Your task to perform on an android device: turn on notifications settings in the gmail app Image 0: 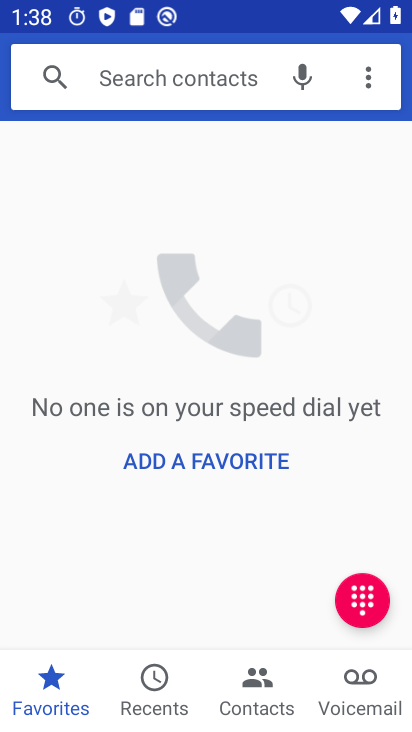
Step 0: press home button
Your task to perform on an android device: turn on notifications settings in the gmail app Image 1: 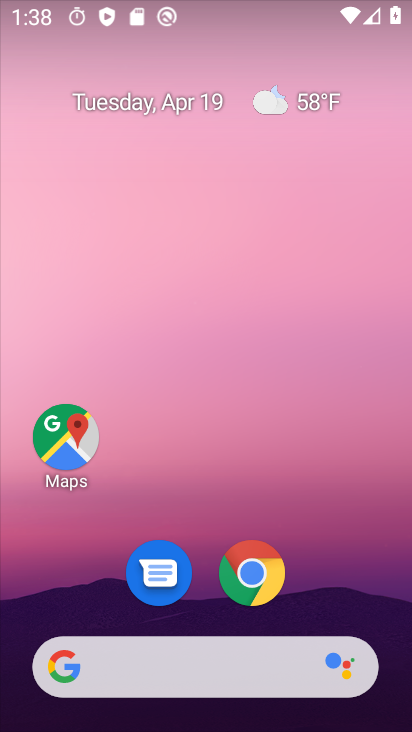
Step 1: drag from (321, 517) to (330, 74)
Your task to perform on an android device: turn on notifications settings in the gmail app Image 2: 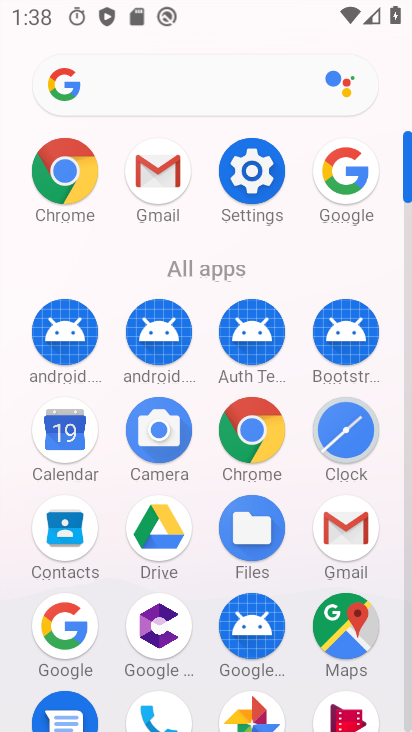
Step 2: click (148, 185)
Your task to perform on an android device: turn on notifications settings in the gmail app Image 3: 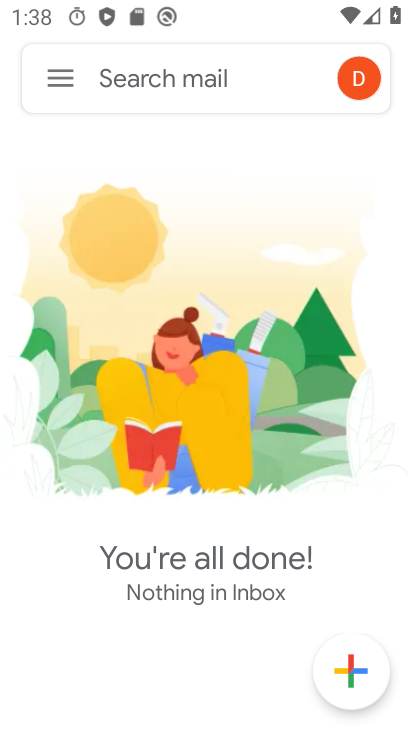
Step 3: click (71, 80)
Your task to perform on an android device: turn on notifications settings in the gmail app Image 4: 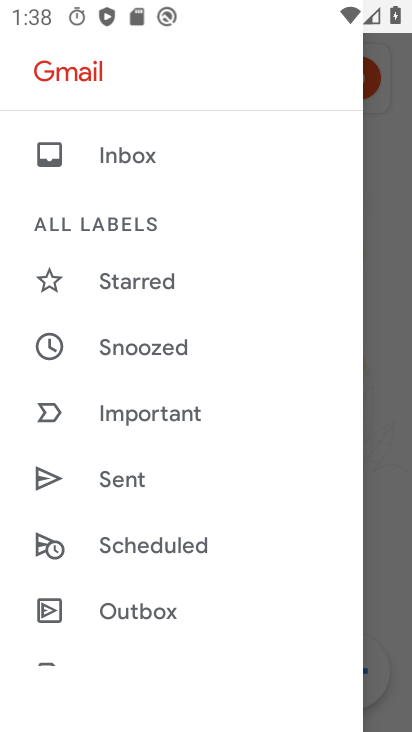
Step 4: drag from (176, 491) to (135, 186)
Your task to perform on an android device: turn on notifications settings in the gmail app Image 5: 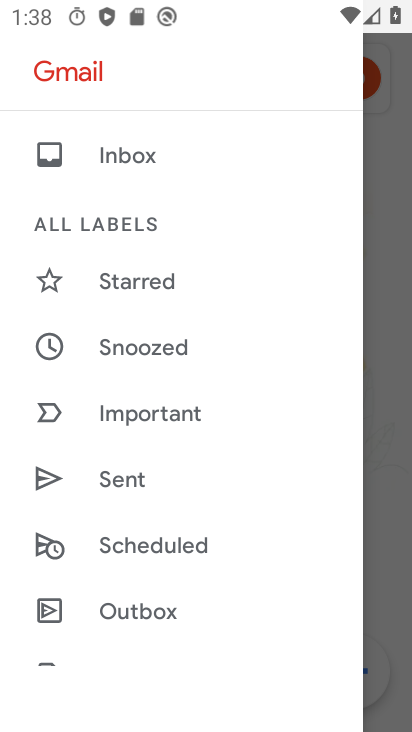
Step 5: drag from (129, 490) to (138, 146)
Your task to perform on an android device: turn on notifications settings in the gmail app Image 6: 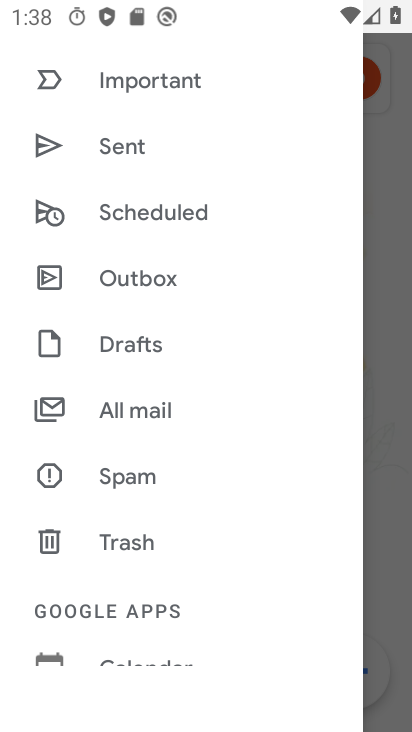
Step 6: drag from (155, 572) to (178, 131)
Your task to perform on an android device: turn on notifications settings in the gmail app Image 7: 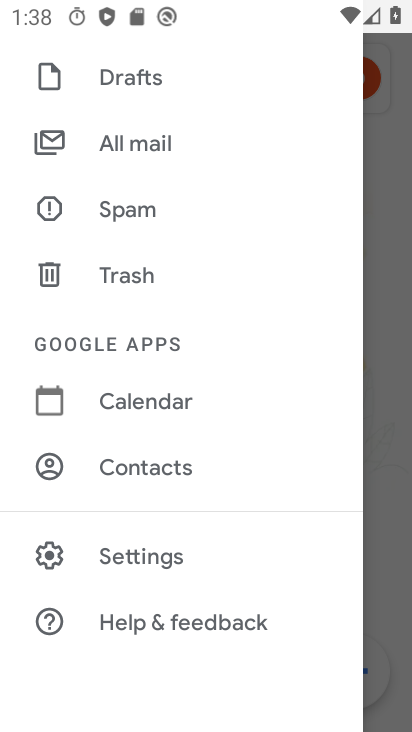
Step 7: click (155, 552)
Your task to perform on an android device: turn on notifications settings in the gmail app Image 8: 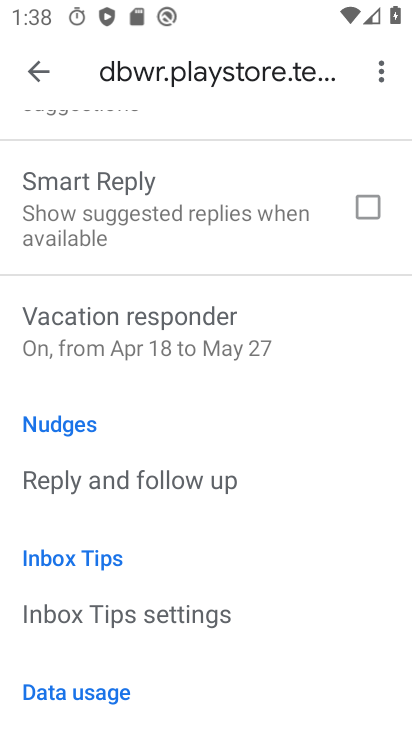
Step 8: drag from (165, 282) to (153, 648)
Your task to perform on an android device: turn on notifications settings in the gmail app Image 9: 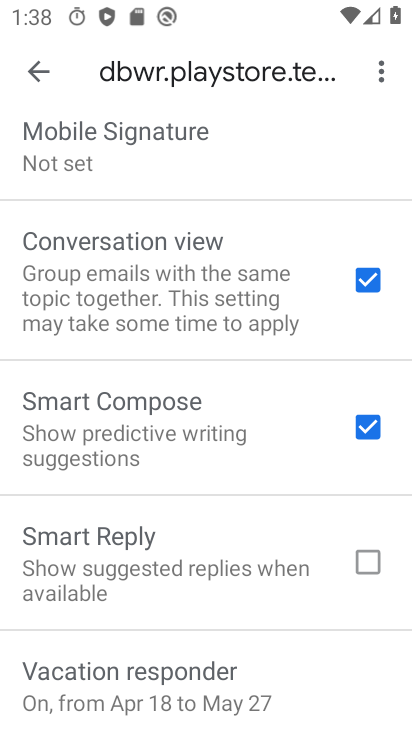
Step 9: drag from (201, 234) to (202, 587)
Your task to perform on an android device: turn on notifications settings in the gmail app Image 10: 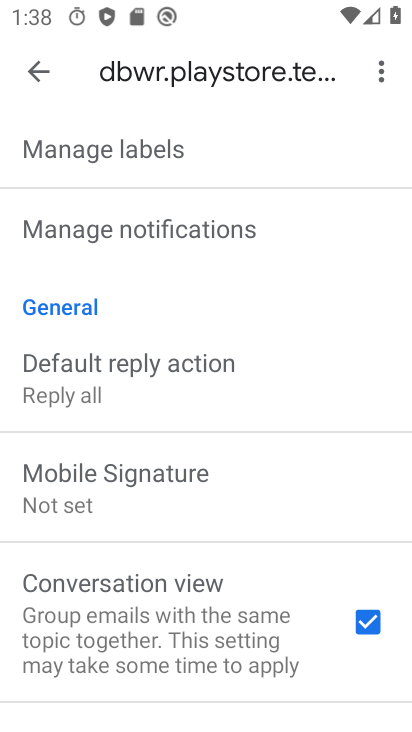
Step 10: drag from (229, 205) to (215, 572)
Your task to perform on an android device: turn on notifications settings in the gmail app Image 11: 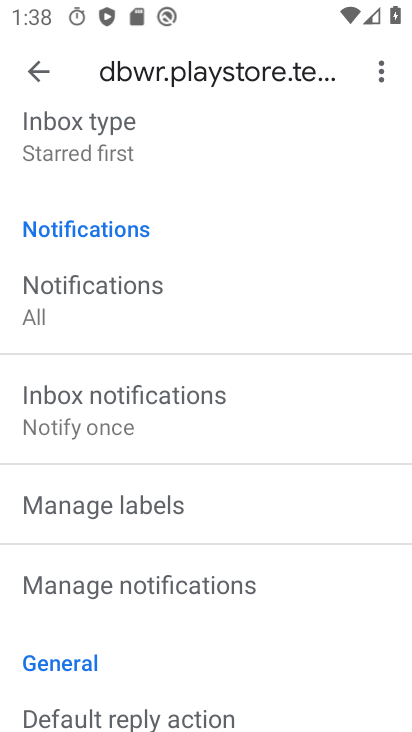
Step 11: drag from (209, 233) to (179, 599)
Your task to perform on an android device: turn on notifications settings in the gmail app Image 12: 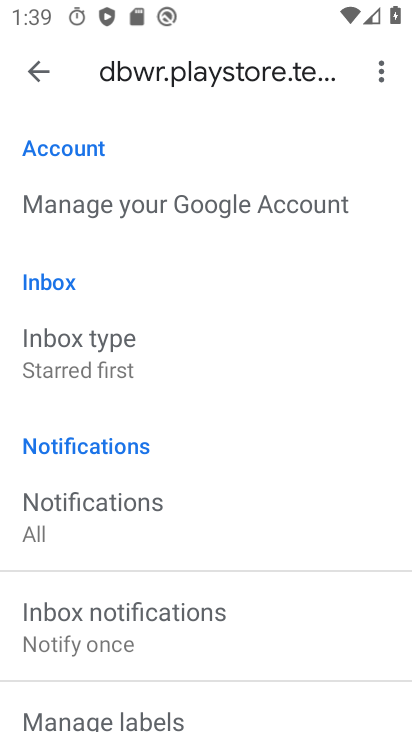
Step 12: drag from (194, 618) to (155, 301)
Your task to perform on an android device: turn on notifications settings in the gmail app Image 13: 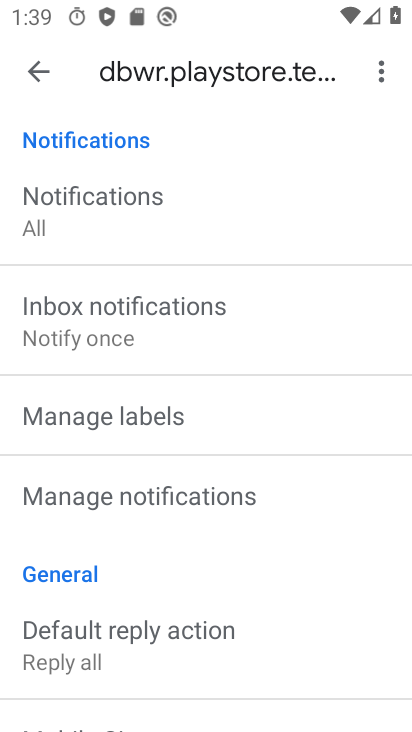
Step 13: drag from (260, 503) to (282, 242)
Your task to perform on an android device: turn on notifications settings in the gmail app Image 14: 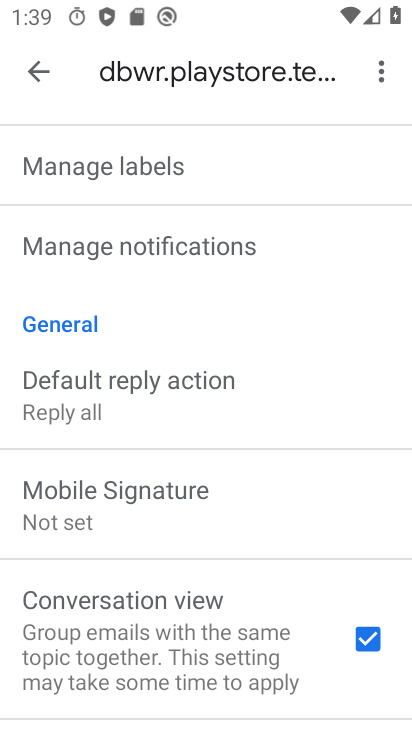
Step 14: drag from (227, 229) to (273, 535)
Your task to perform on an android device: turn on notifications settings in the gmail app Image 15: 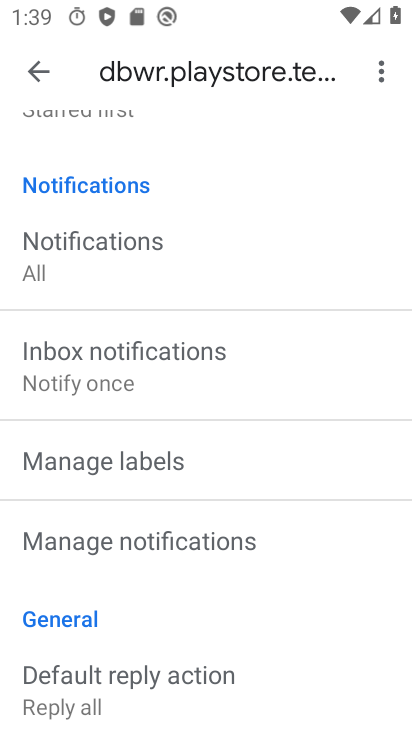
Step 15: click (145, 255)
Your task to perform on an android device: turn on notifications settings in the gmail app Image 16: 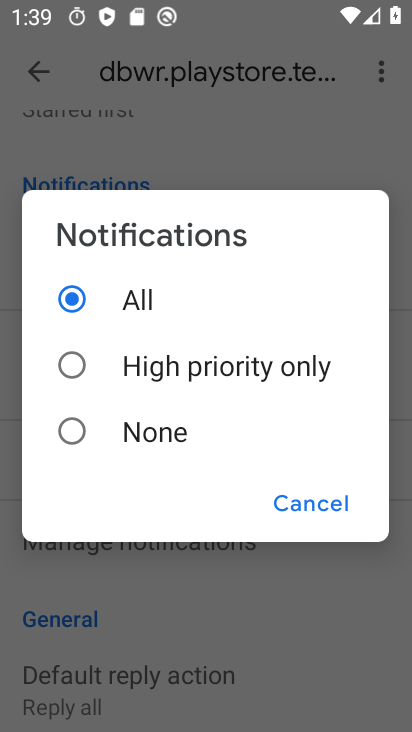
Step 16: click (185, 374)
Your task to perform on an android device: turn on notifications settings in the gmail app Image 17: 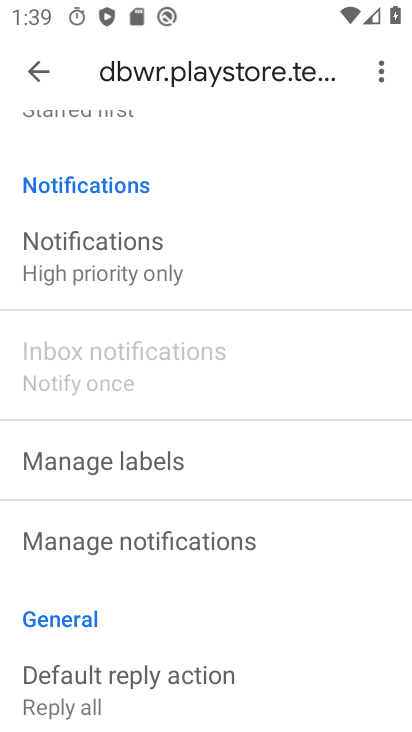
Step 17: task complete